Your task to perform on an android device: Go to Maps Image 0: 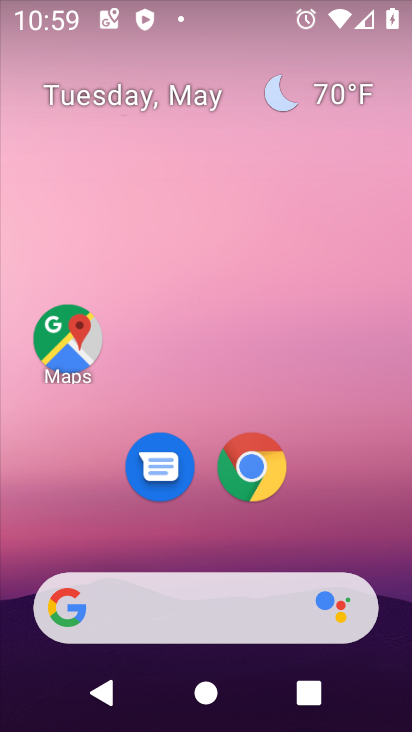
Step 0: click (72, 331)
Your task to perform on an android device: Go to Maps Image 1: 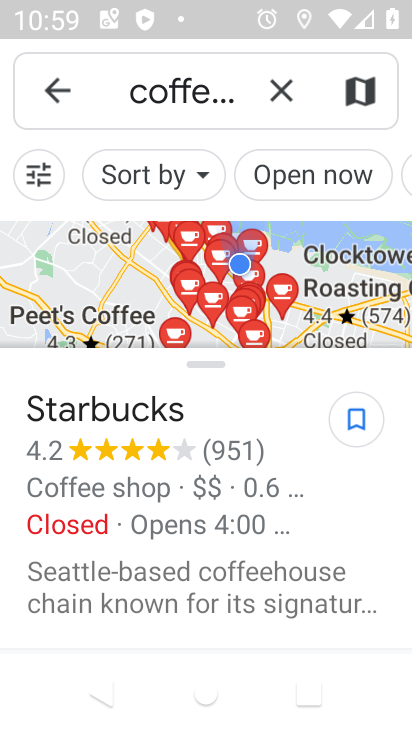
Step 1: task complete